Your task to perform on an android device: What's the weather going to be this weekend? Image 0: 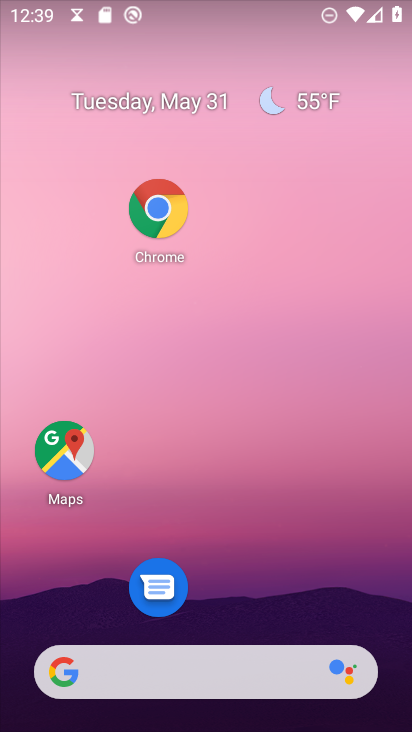
Step 0: drag from (239, 603) to (258, 74)
Your task to perform on an android device: What's the weather going to be this weekend? Image 1: 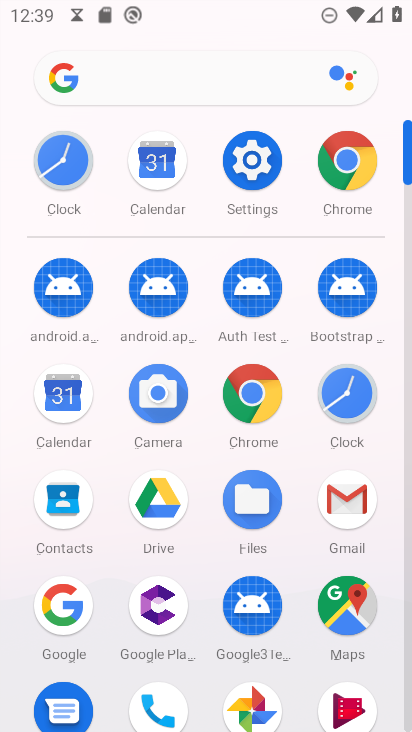
Step 1: click (275, 402)
Your task to perform on an android device: What's the weather going to be this weekend? Image 2: 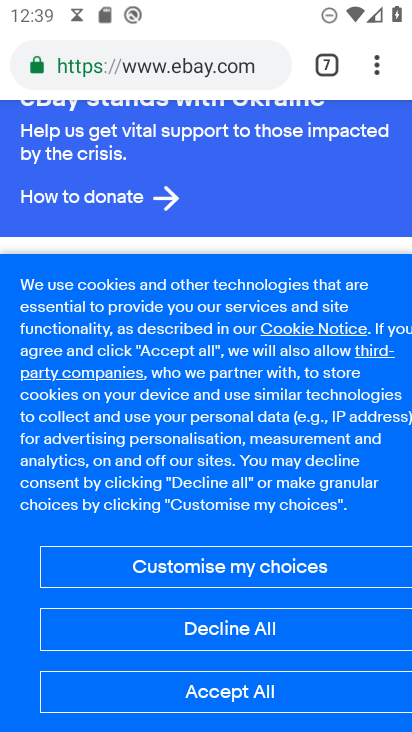
Step 2: click (325, 71)
Your task to perform on an android device: What's the weather going to be this weekend? Image 3: 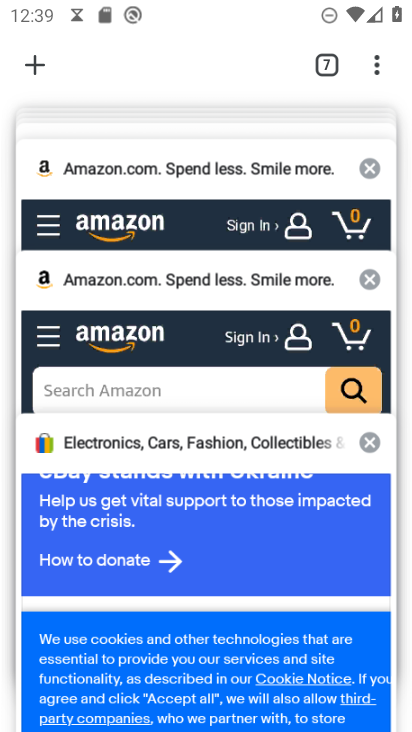
Step 3: drag from (150, 147) to (172, 571)
Your task to perform on an android device: What's the weather going to be this weekend? Image 4: 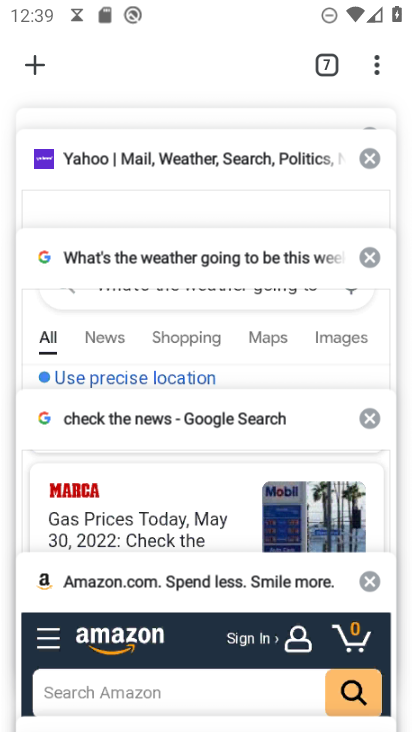
Step 4: click (118, 325)
Your task to perform on an android device: What's the weather going to be this weekend? Image 5: 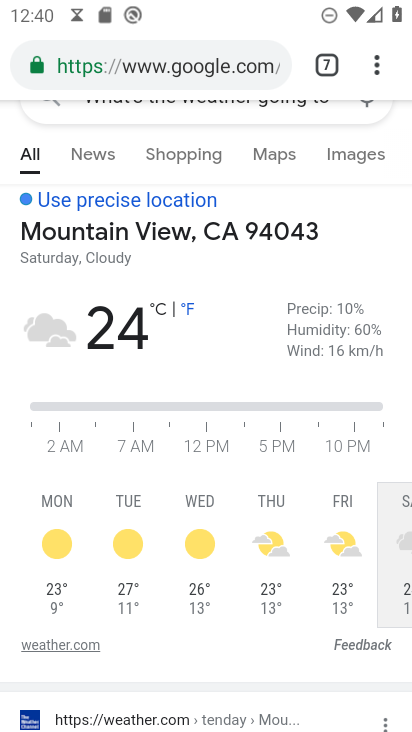
Step 5: drag from (356, 590) to (210, 587)
Your task to perform on an android device: What's the weather going to be this weekend? Image 6: 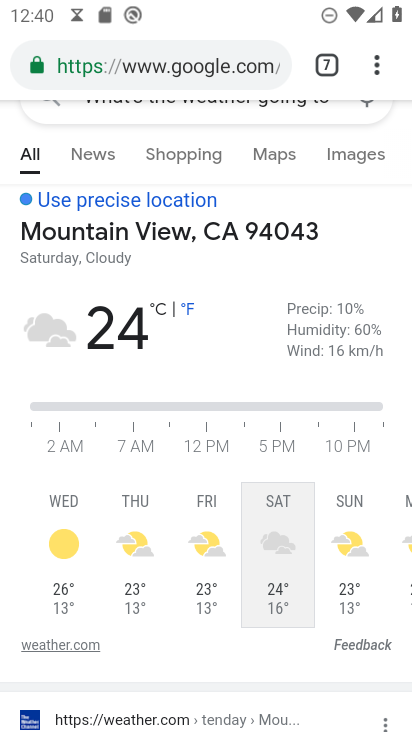
Step 6: click (344, 553)
Your task to perform on an android device: What's the weather going to be this weekend? Image 7: 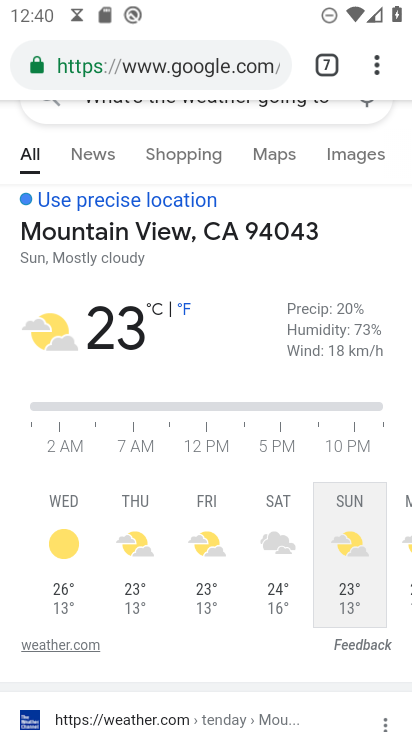
Step 7: task complete